Your task to perform on an android device: Open Google Chrome and click the shortcut for Amazon.com Image 0: 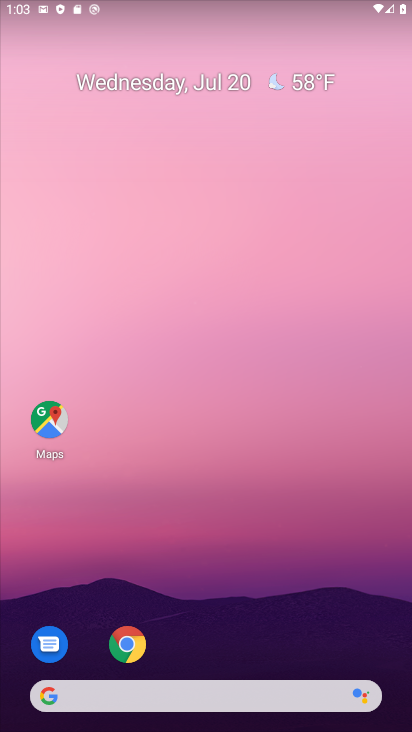
Step 0: click (128, 641)
Your task to perform on an android device: Open Google Chrome and click the shortcut for Amazon.com Image 1: 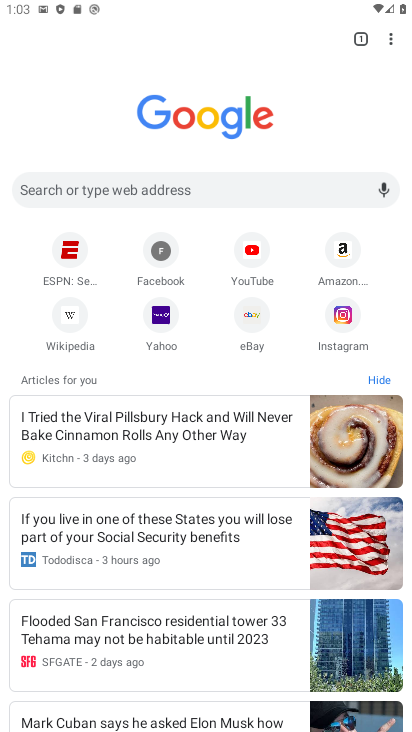
Step 1: click (342, 247)
Your task to perform on an android device: Open Google Chrome and click the shortcut for Amazon.com Image 2: 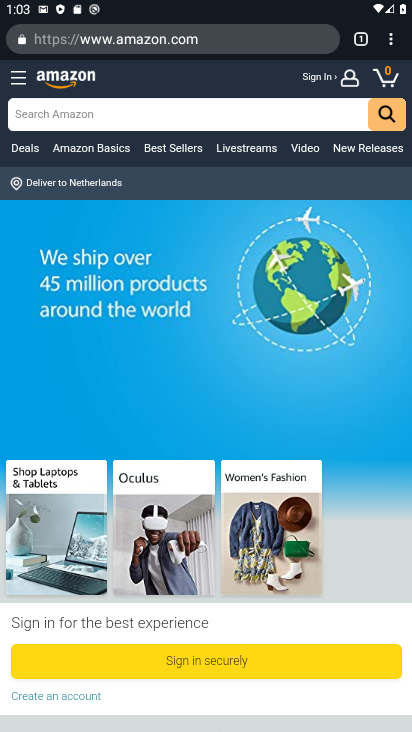
Step 2: task complete